Your task to perform on an android device: Open calendar and show me the first week of next month Image 0: 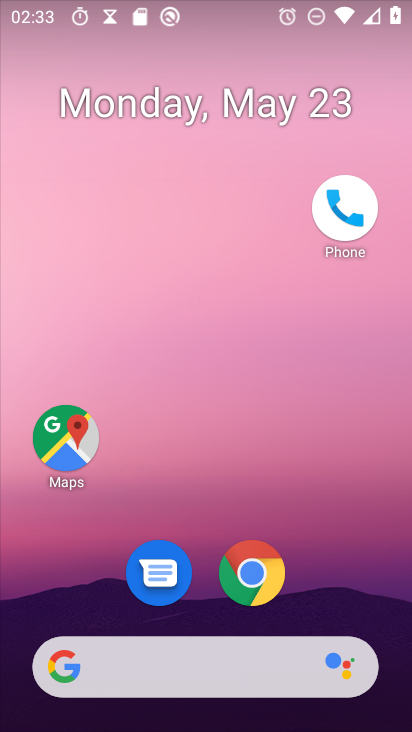
Step 0: press home button
Your task to perform on an android device: Open calendar and show me the first week of next month Image 1: 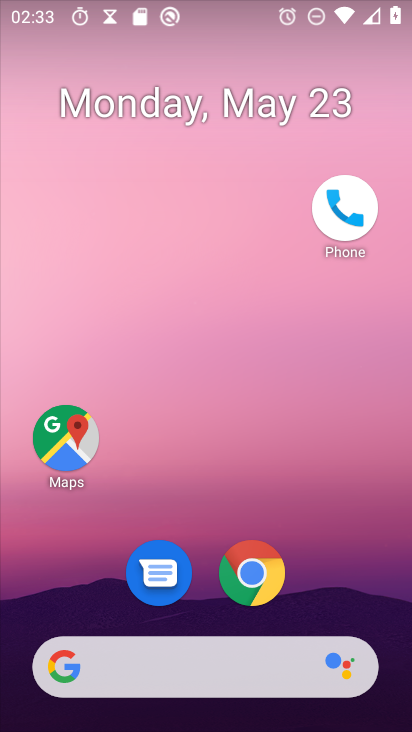
Step 1: drag from (127, 666) to (289, 145)
Your task to perform on an android device: Open calendar and show me the first week of next month Image 2: 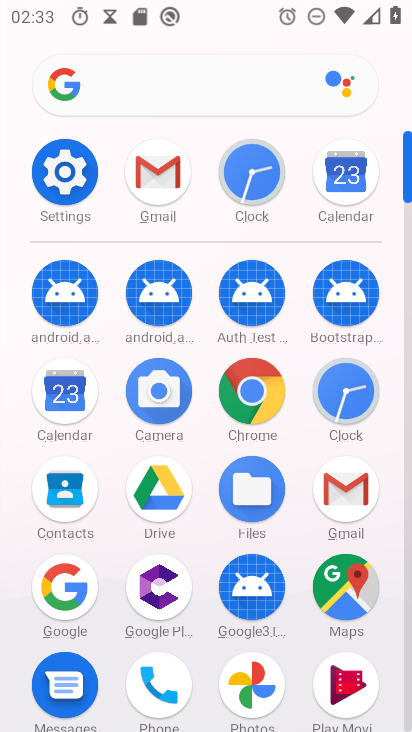
Step 2: click (54, 400)
Your task to perform on an android device: Open calendar and show me the first week of next month Image 3: 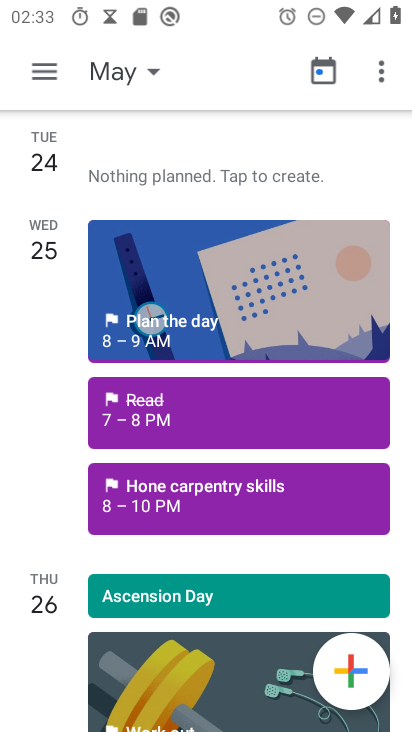
Step 3: click (98, 76)
Your task to perform on an android device: Open calendar and show me the first week of next month Image 4: 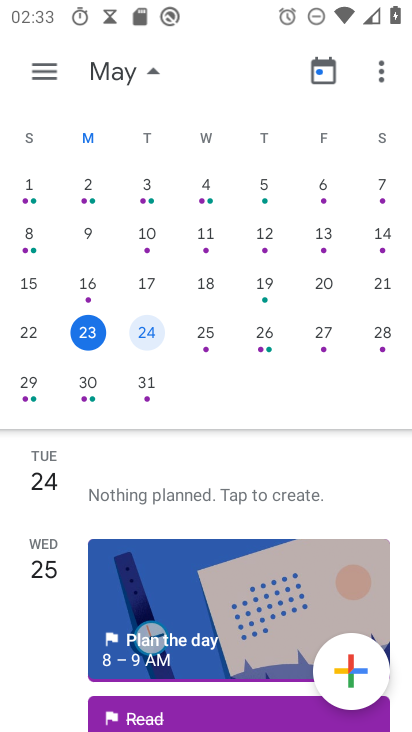
Step 4: drag from (378, 307) to (7, 231)
Your task to perform on an android device: Open calendar and show me the first week of next month Image 5: 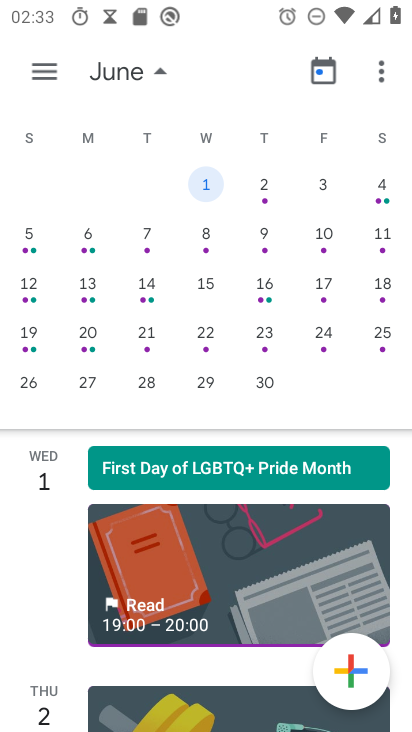
Step 5: click (271, 182)
Your task to perform on an android device: Open calendar and show me the first week of next month Image 6: 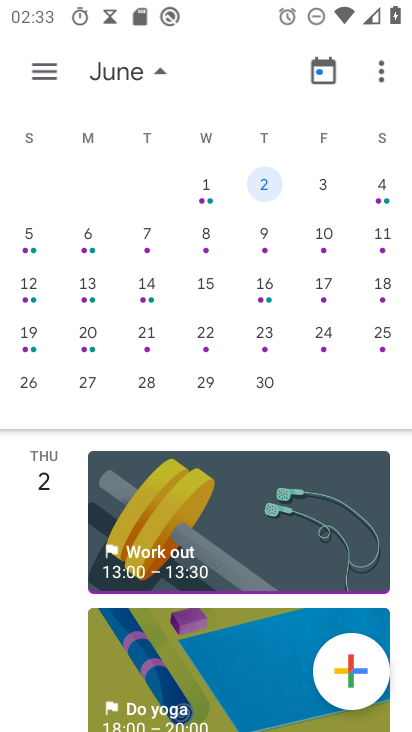
Step 6: click (206, 186)
Your task to perform on an android device: Open calendar and show me the first week of next month Image 7: 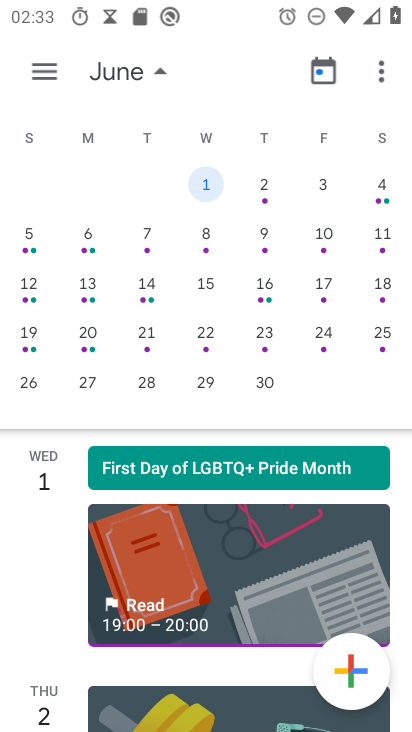
Step 7: click (40, 74)
Your task to perform on an android device: Open calendar and show me the first week of next month Image 8: 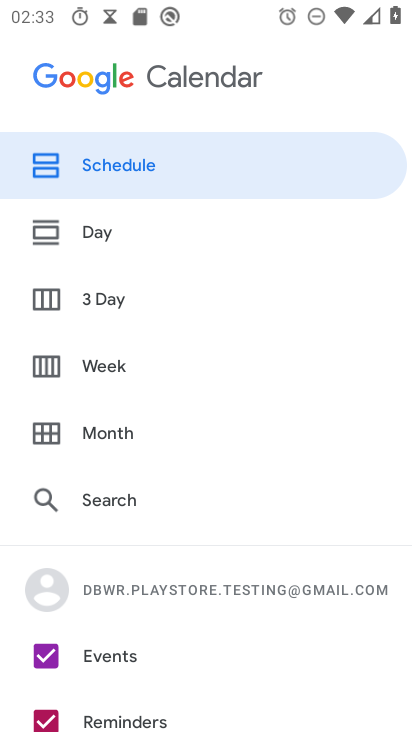
Step 8: click (113, 371)
Your task to perform on an android device: Open calendar and show me the first week of next month Image 9: 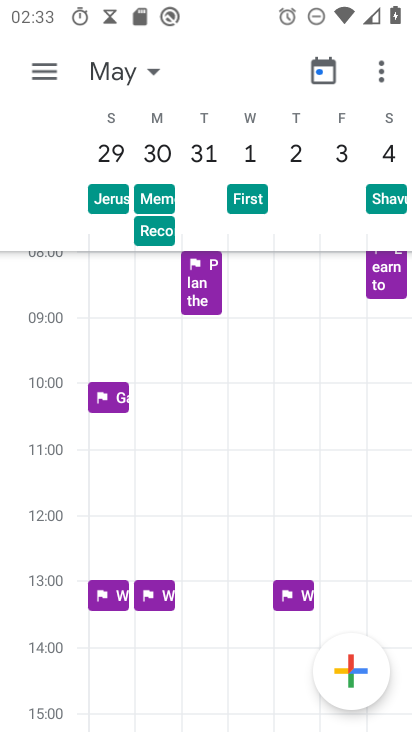
Step 9: click (25, 77)
Your task to perform on an android device: Open calendar and show me the first week of next month Image 10: 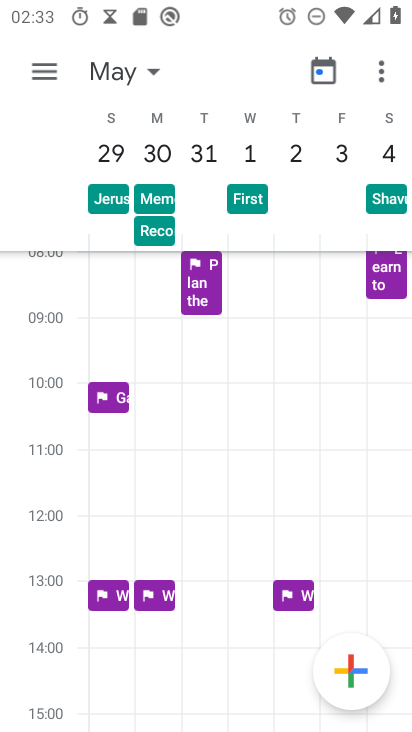
Step 10: click (46, 72)
Your task to perform on an android device: Open calendar and show me the first week of next month Image 11: 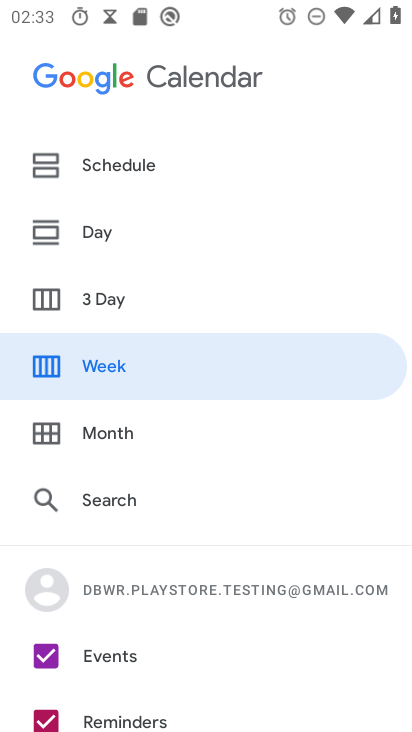
Step 11: click (115, 170)
Your task to perform on an android device: Open calendar and show me the first week of next month Image 12: 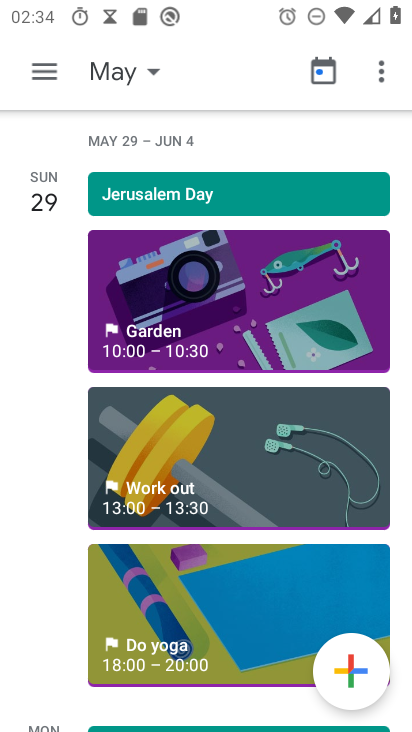
Step 12: task complete